Your task to perform on an android device: empty trash in google photos Image 0: 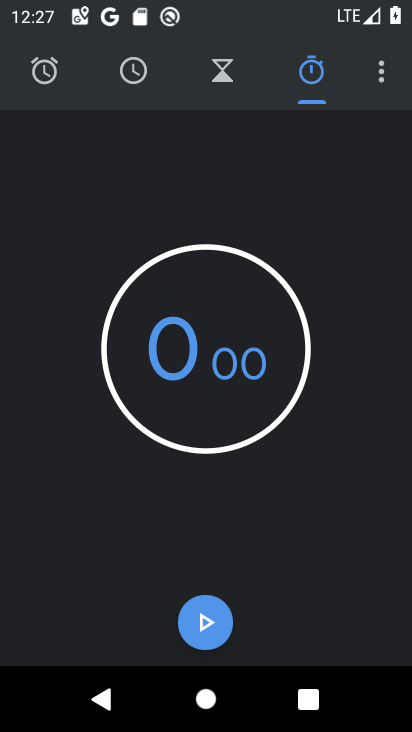
Step 0: press home button
Your task to perform on an android device: empty trash in google photos Image 1: 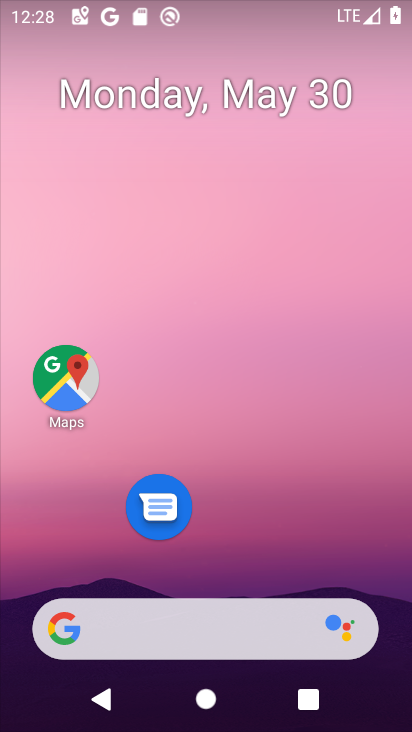
Step 1: drag from (212, 543) to (219, 58)
Your task to perform on an android device: empty trash in google photos Image 2: 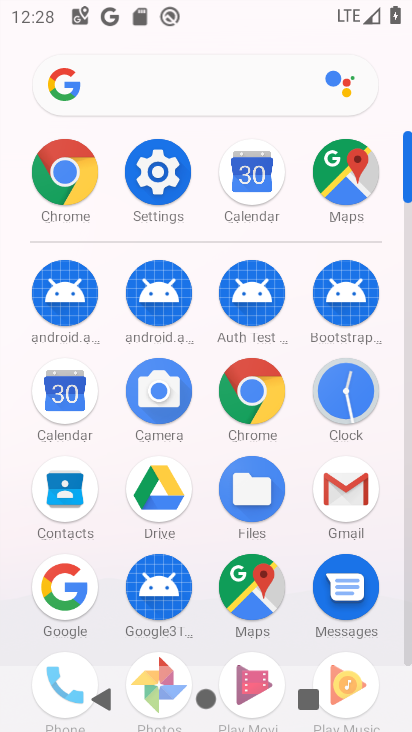
Step 2: drag from (211, 273) to (227, 11)
Your task to perform on an android device: empty trash in google photos Image 3: 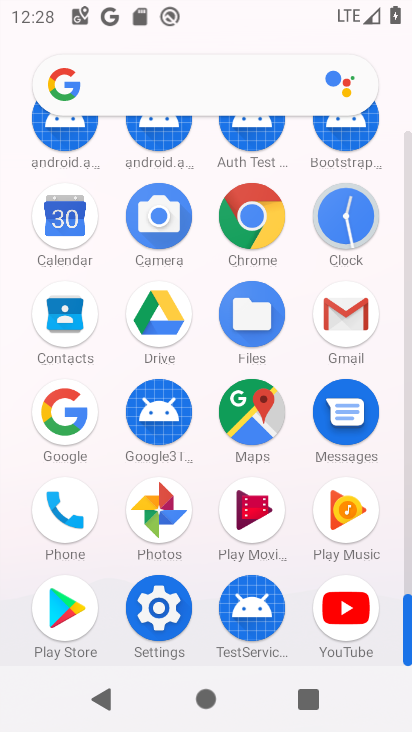
Step 3: click (167, 492)
Your task to perform on an android device: empty trash in google photos Image 4: 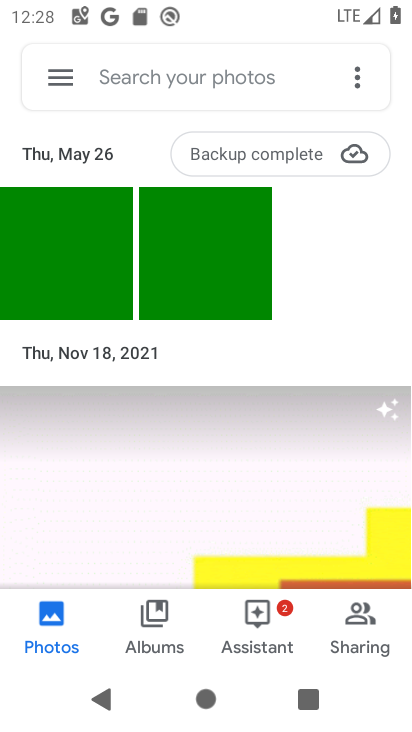
Step 4: click (55, 64)
Your task to perform on an android device: empty trash in google photos Image 5: 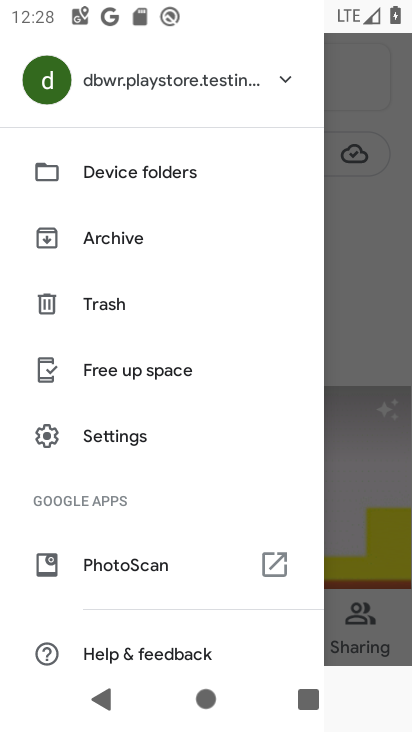
Step 5: drag from (152, 524) to (160, 239)
Your task to perform on an android device: empty trash in google photos Image 6: 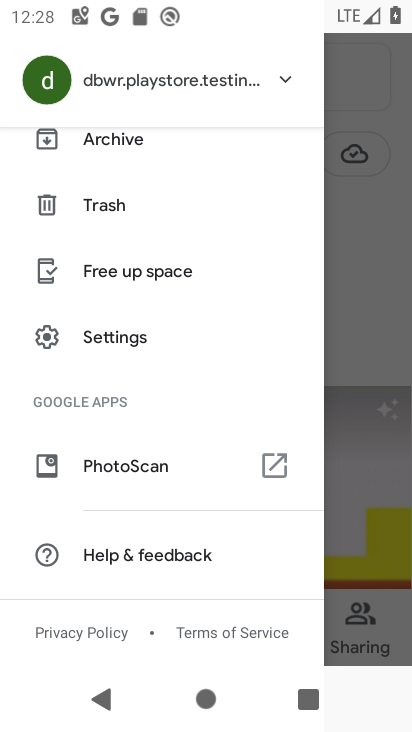
Step 6: click (90, 199)
Your task to perform on an android device: empty trash in google photos Image 7: 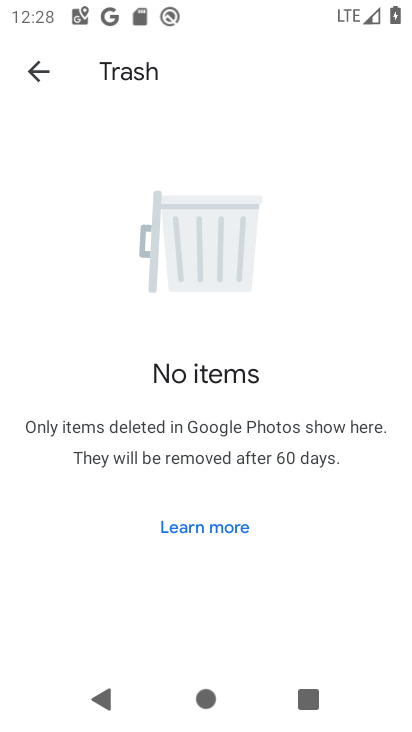
Step 7: task complete